Your task to perform on an android device: Look up the best rated desk lamps on IKEA Image 0: 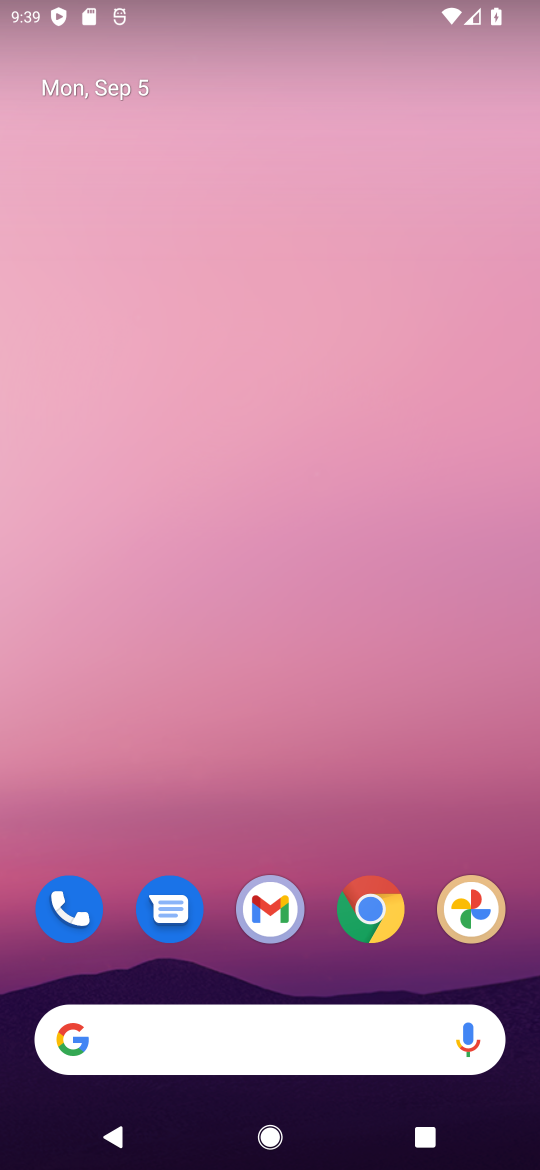
Step 0: click (266, 918)
Your task to perform on an android device: Look up the best rated desk lamps on IKEA Image 1: 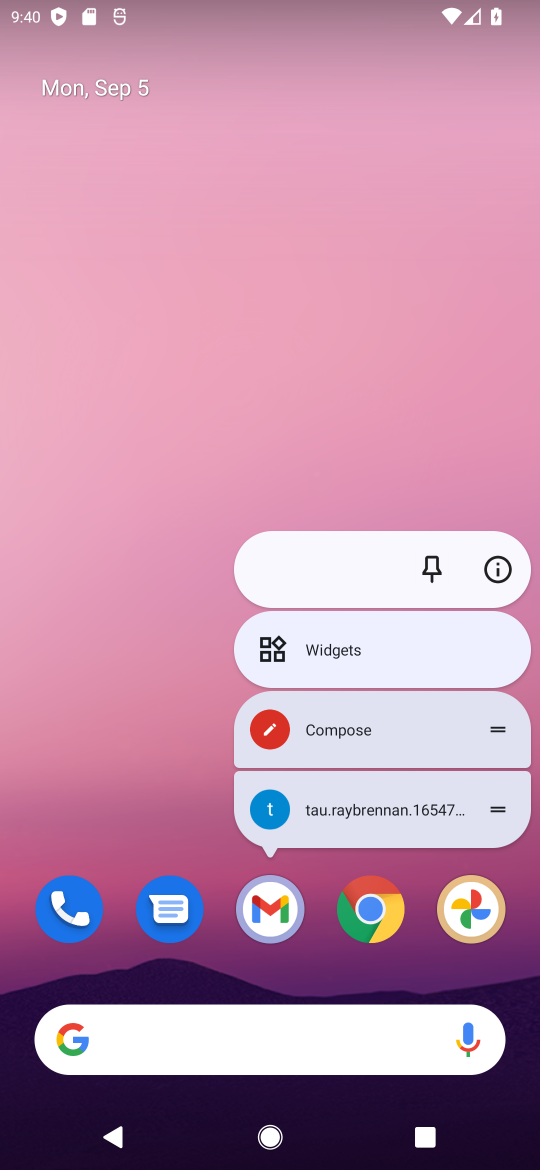
Step 1: click (266, 918)
Your task to perform on an android device: Look up the best rated desk lamps on IKEA Image 2: 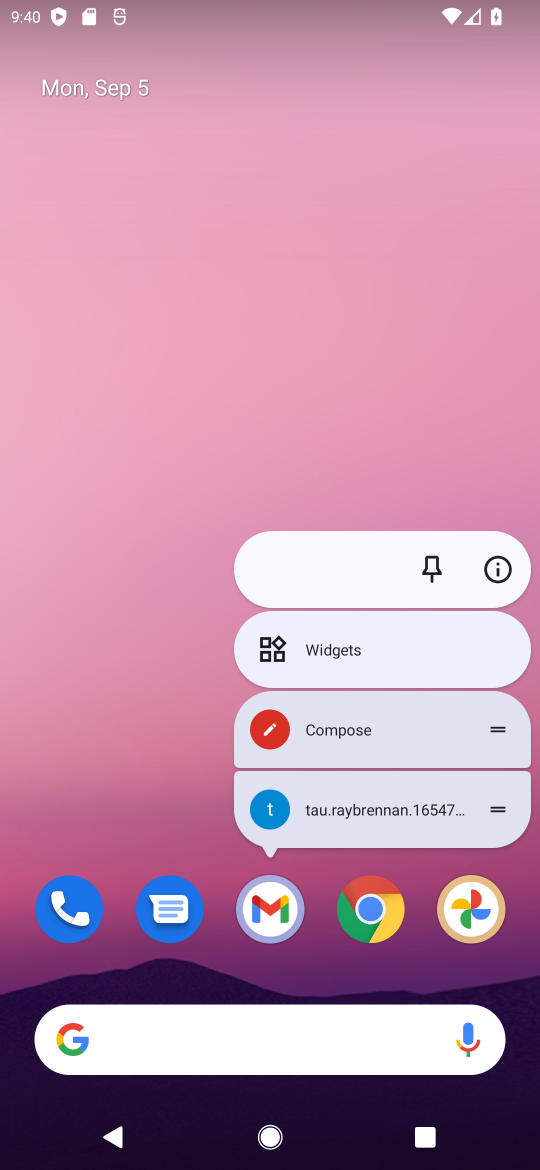
Step 2: click (266, 918)
Your task to perform on an android device: Look up the best rated desk lamps on IKEA Image 3: 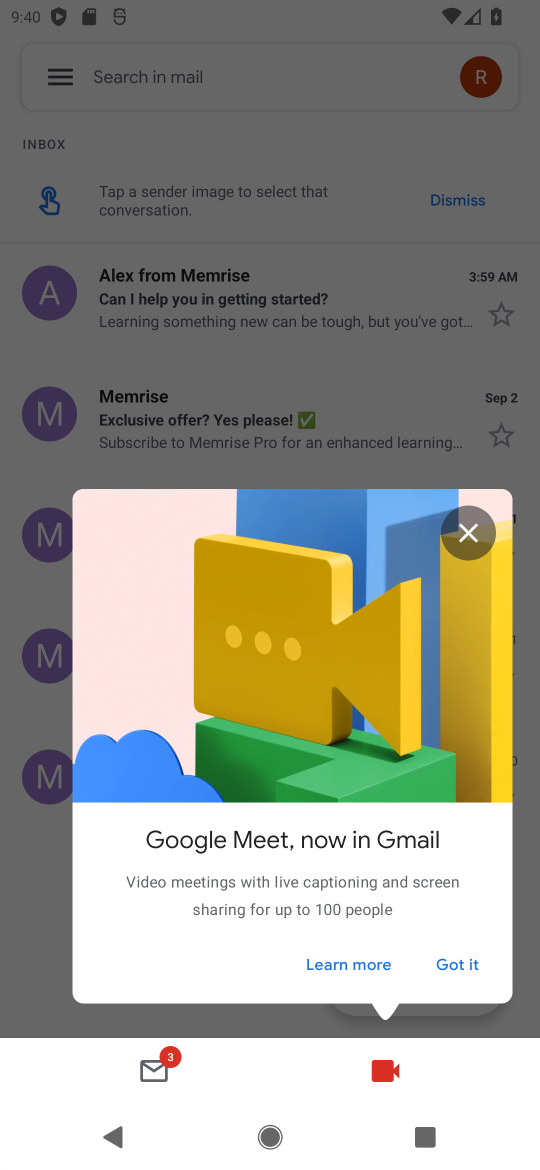
Step 3: task complete